Your task to perform on an android device: empty trash in google photos Image 0: 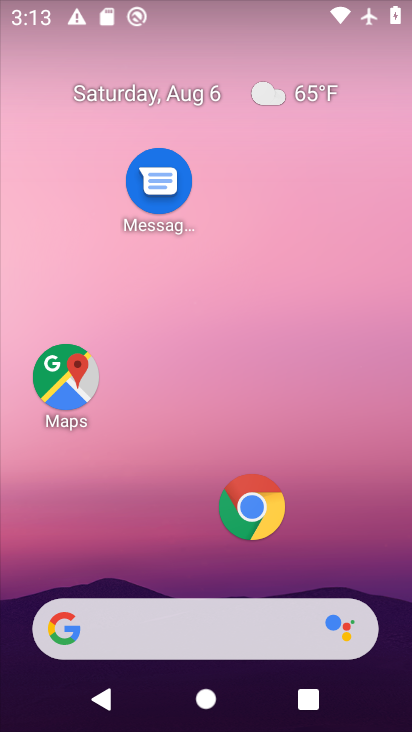
Step 0: drag from (177, 544) to (246, 1)
Your task to perform on an android device: empty trash in google photos Image 1: 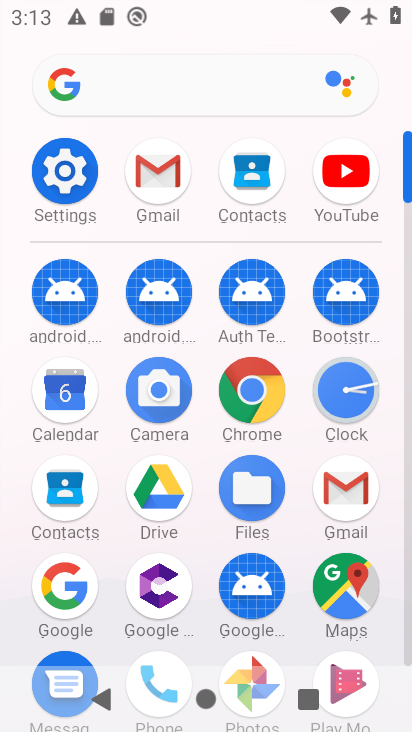
Step 1: drag from (205, 625) to (205, 425)
Your task to perform on an android device: empty trash in google photos Image 2: 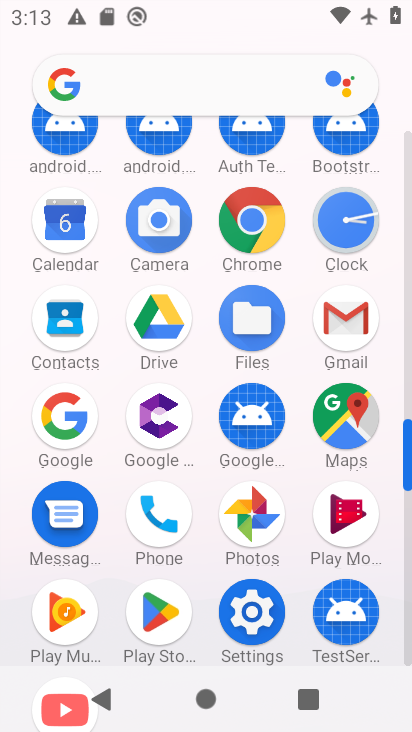
Step 2: click (257, 521)
Your task to perform on an android device: empty trash in google photos Image 3: 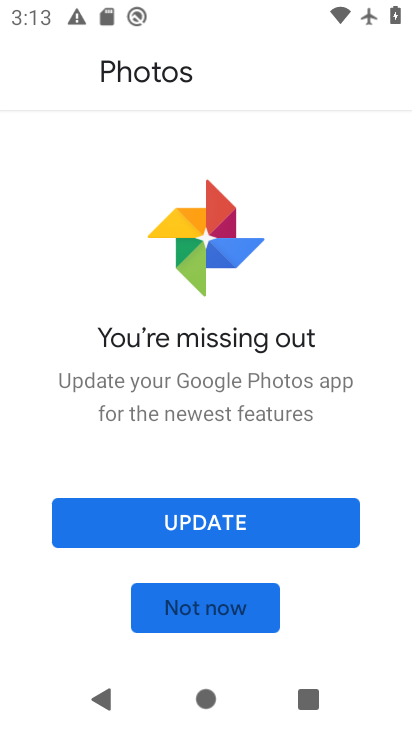
Step 3: click (205, 620)
Your task to perform on an android device: empty trash in google photos Image 4: 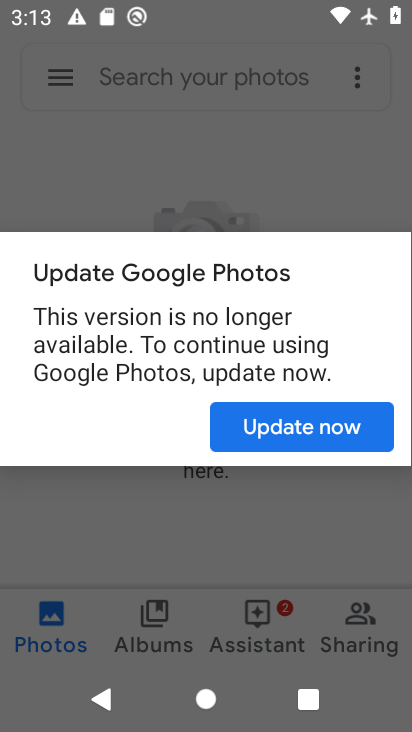
Step 4: click (304, 428)
Your task to perform on an android device: empty trash in google photos Image 5: 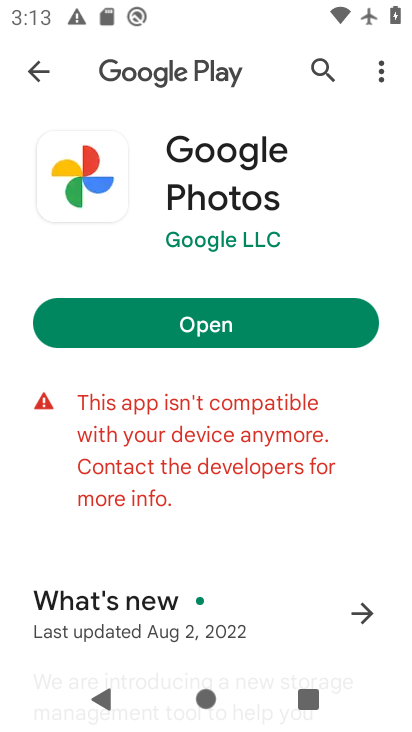
Step 5: click (233, 321)
Your task to perform on an android device: empty trash in google photos Image 6: 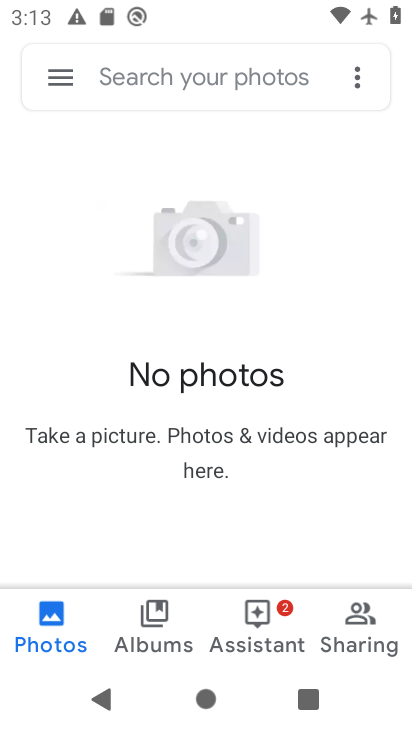
Step 6: click (50, 81)
Your task to perform on an android device: empty trash in google photos Image 7: 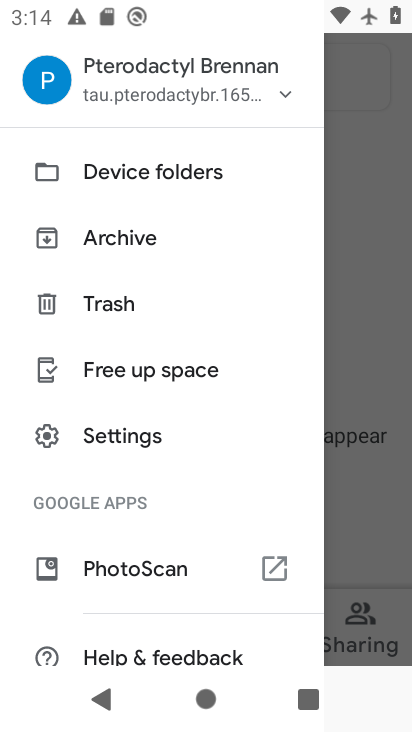
Step 7: click (124, 304)
Your task to perform on an android device: empty trash in google photos Image 8: 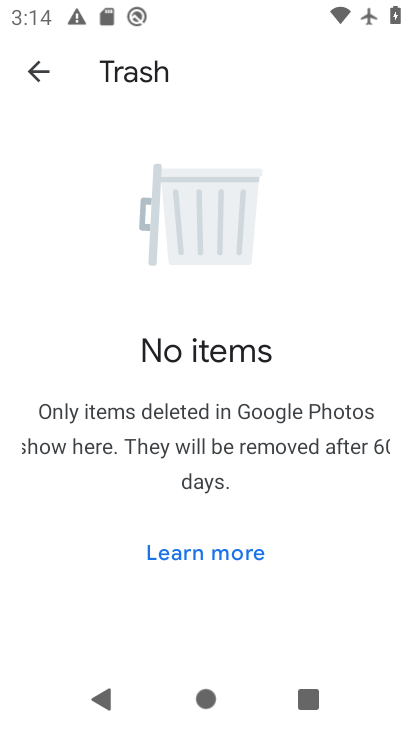
Step 8: task complete